Your task to perform on an android device: star an email in the gmail app Image 0: 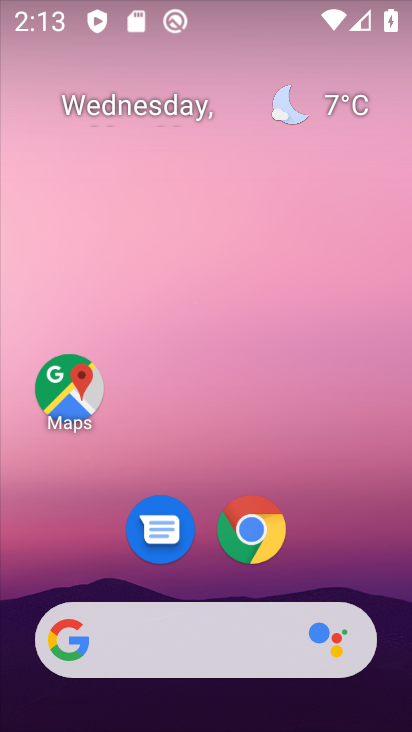
Step 0: drag from (41, 530) to (172, 153)
Your task to perform on an android device: star an email in the gmail app Image 1: 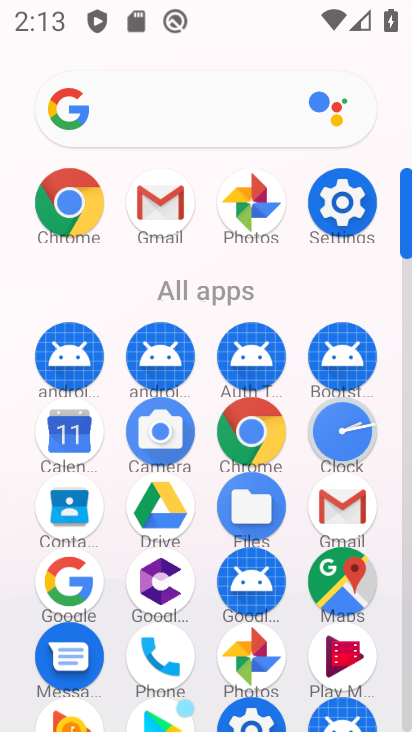
Step 1: click (167, 195)
Your task to perform on an android device: star an email in the gmail app Image 2: 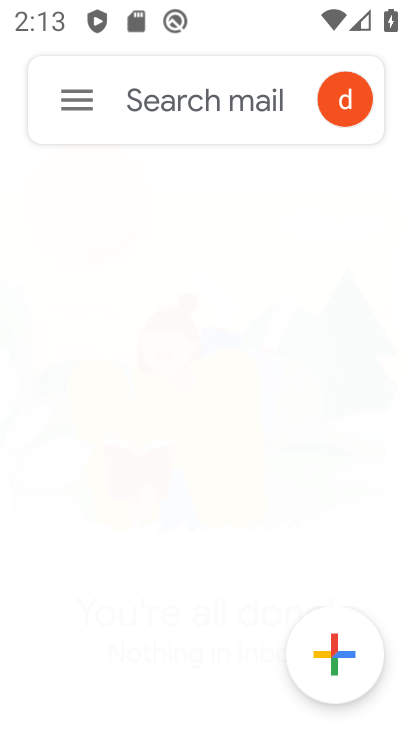
Step 2: drag from (179, 100) to (139, 380)
Your task to perform on an android device: star an email in the gmail app Image 3: 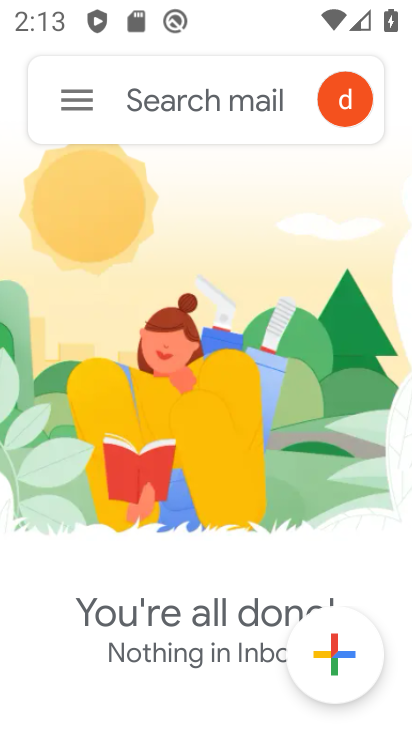
Step 3: click (68, 94)
Your task to perform on an android device: star an email in the gmail app Image 4: 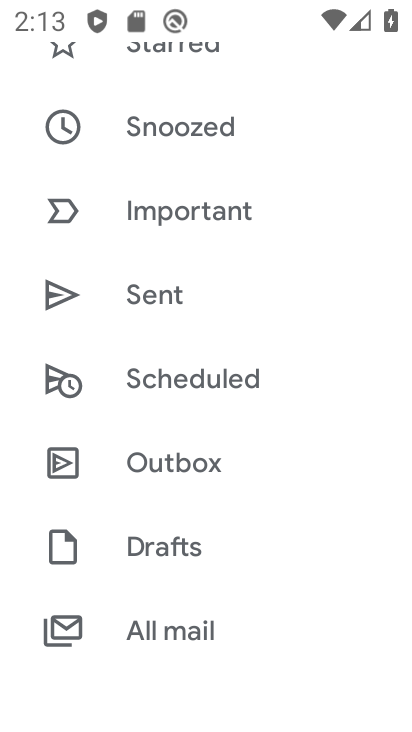
Step 4: drag from (226, 122) to (157, 609)
Your task to perform on an android device: star an email in the gmail app Image 5: 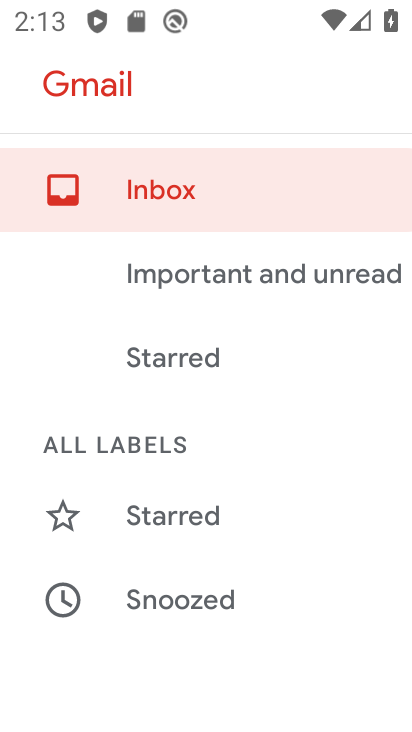
Step 5: click (257, 179)
Your task to perform on an android device: star an email in the gmail app Image 6: 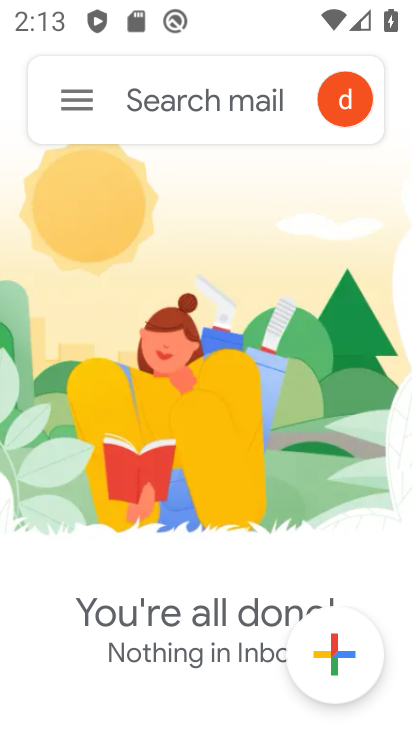
Step 6: task complete